Your task to perform on an android device: turn off notifications settings in the gmail app Image 0: 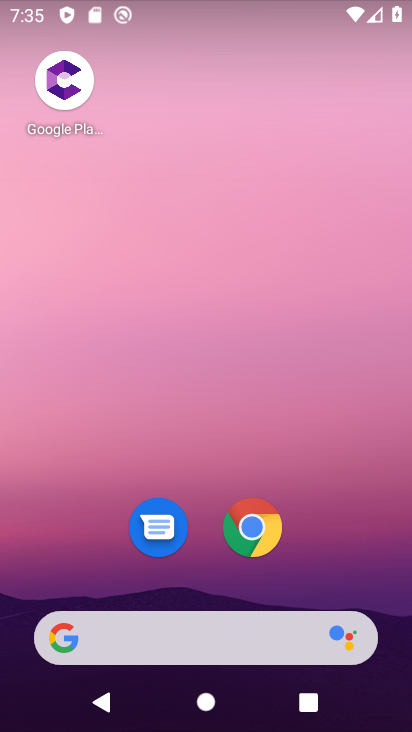
Step 0: drag from (212, 600) to (316, 20)
Your task to perform on an android device: turn off notifications settings in the gmail app Image 1: 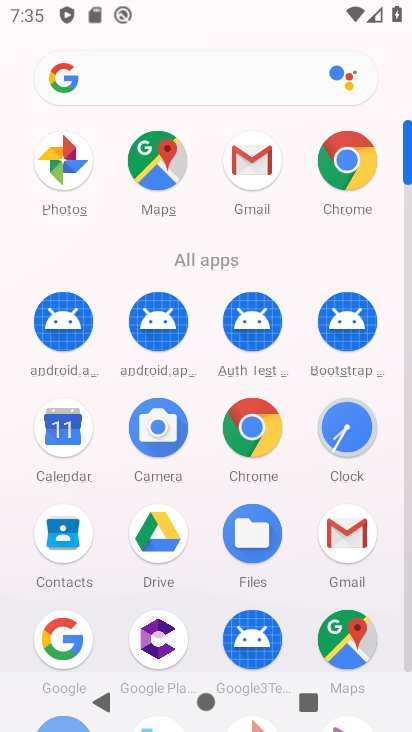
Step 1: drag from (206, 591) to (220, 198)
Your task to perform on an android device: turn off notifications settings in the gmail app Image 2: 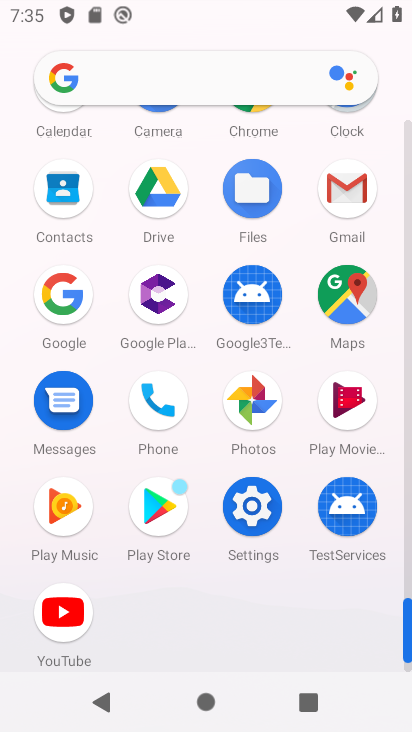
Step 2: click (264, 518)
Your task to perform on an android device: turn off notifications settings in the gmail app Image 3: 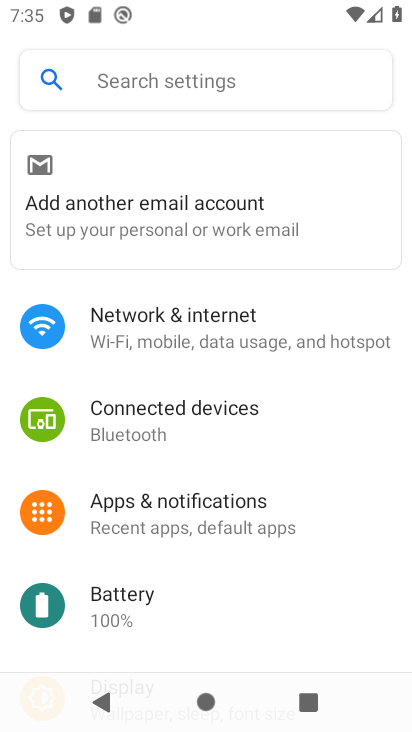
Step 3: click (173, 530)
Your task to perform on an android device: turn off notifications settings in the gmail app Image 4: 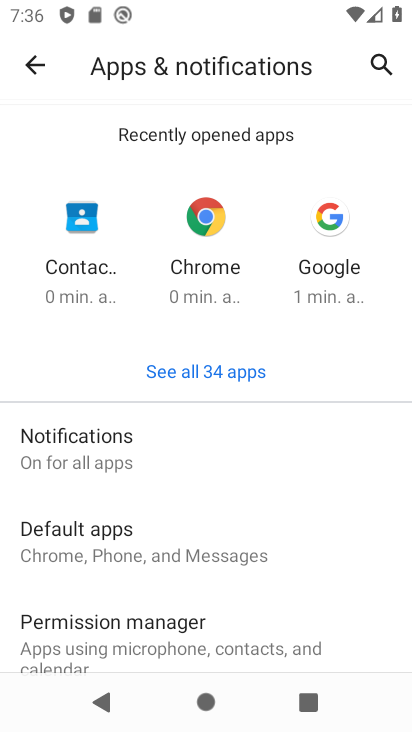
Step 4: click (157, 436)
Your task to perform on an android device: turn off notifications settings in the gmail app Image 5: 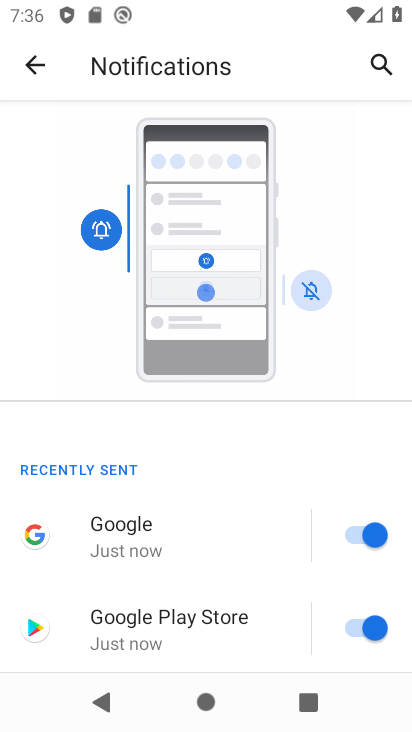
Step 5: drag from (147, 635) to (238, 206)
Your task to perform on an android device: turn off notifications settings in the gmail app Image 6: 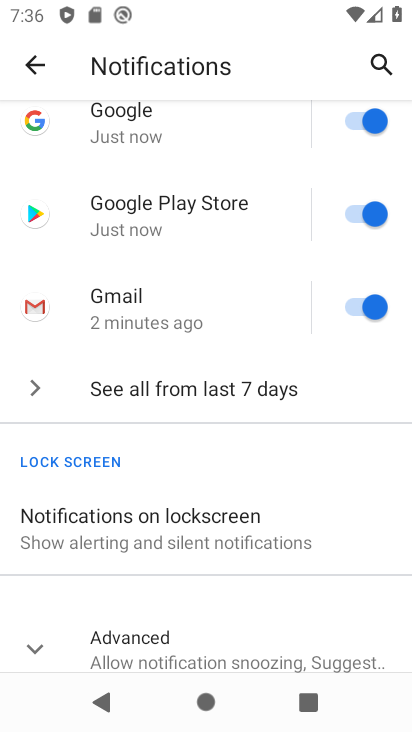
Step 6: click (161, 305)
Your task to perform on an android device: turn off notifications settings in the gmail app Image 7: 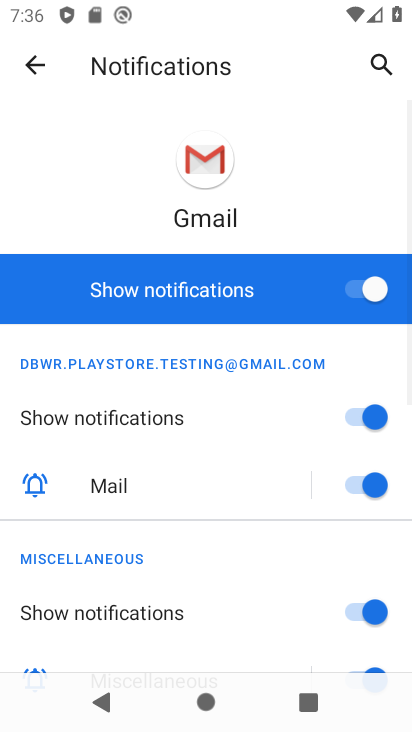
Step 7: click (369, 288)
Your task to perform on an android device: turn off notifications settings in the gmail app Image 8: 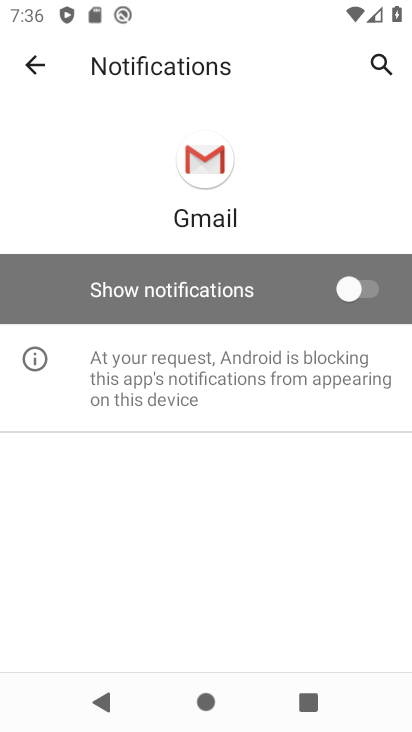
Step 8: task complete